Your task to perform on an android device: Go to eBay Image 0: 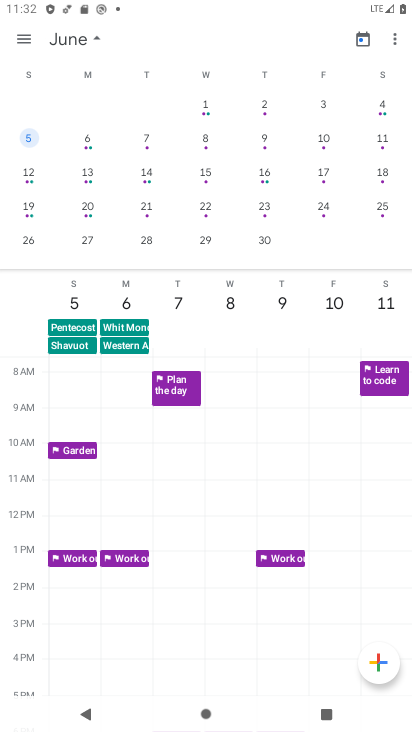
Step 0: press home button
Your task to perform on an android device: Go to eBay Image 1: 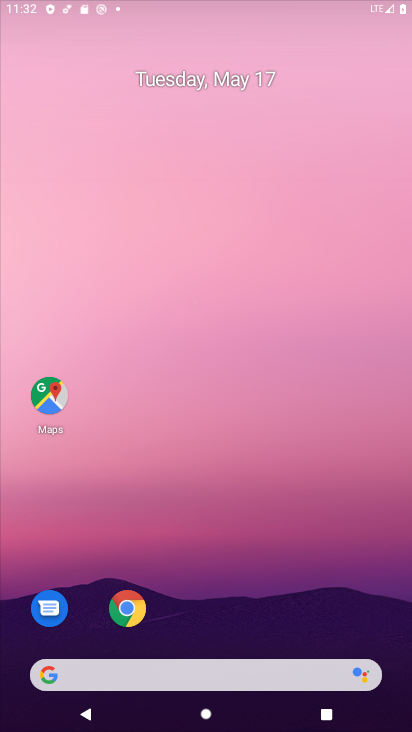
Step 1: drag from (288, 557) to (278, 122)
Your task to perform on an android device: Go to eBay Image 2: 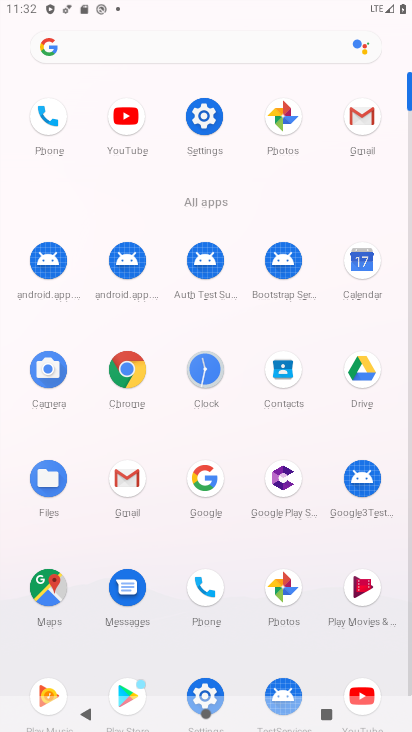
Step 2: click (142, 375)
Your task to perform on an android device: Go to eBay Image 3: 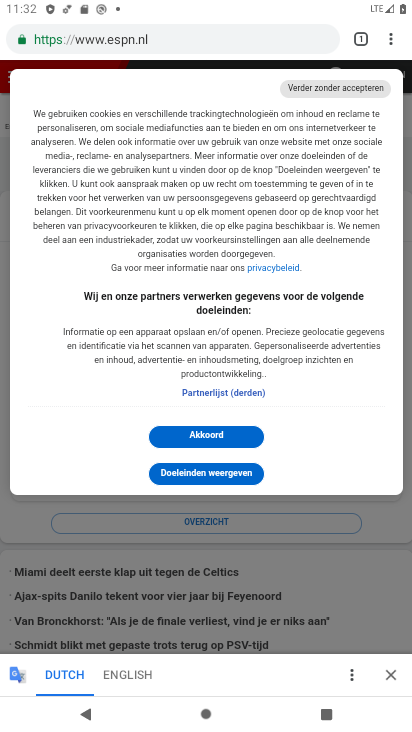
Step 3: click (355, 36)
Your task to perform on an android device: Go to eBay Image 4: 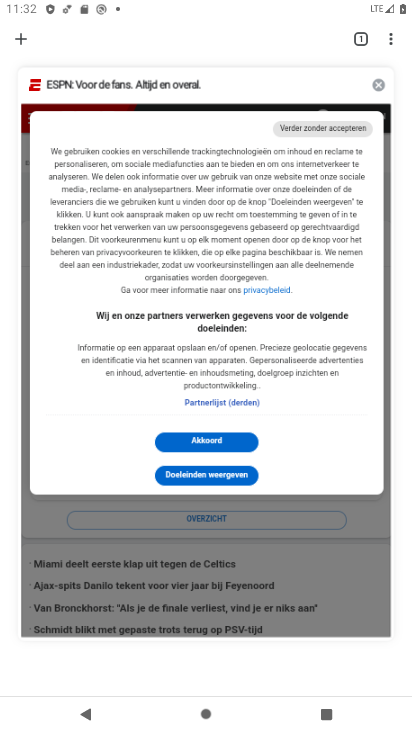
Step 4: click (24, 40)
Your task to perform on an android device: Go to eBay Image 5: 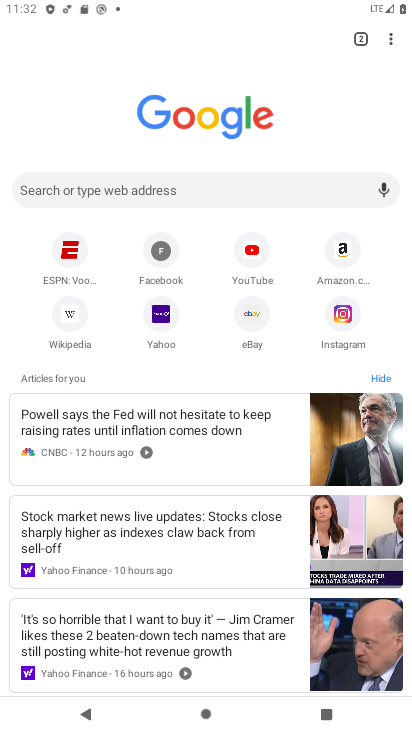
Step 5: click (247, 310)
Your task to perform on an android device: Go to eBay Image 6: 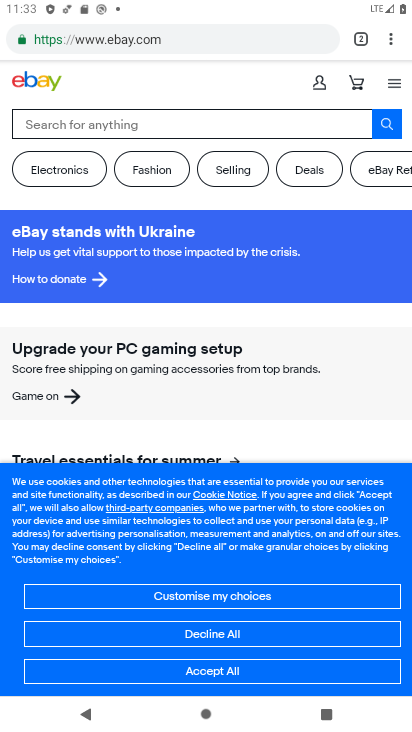
Step 6: task complete